Your task to perform on an android device: Do I have any events today? Image 0: 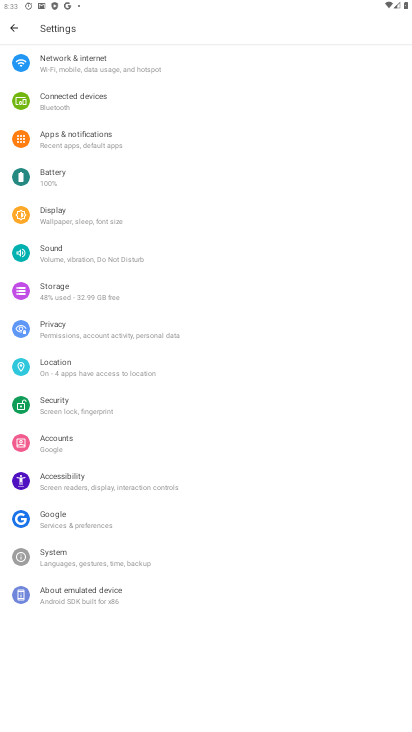
Step 0: press home button
Your task to perform on an android device: Do I have any events today? Image 1: 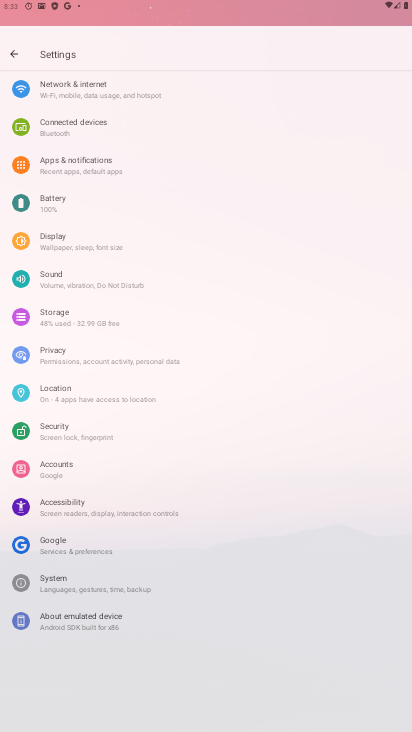
Step 1: press home button
Your task to perform on an android device: Do I have any events today? Image 2: 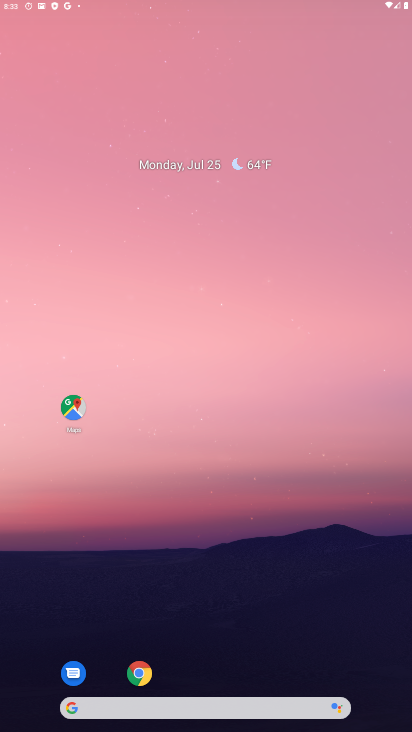
Step 2: drag from (148, 617) to (236, 70)
Your task to perform on an android device: Do I have any events today? Image 3: 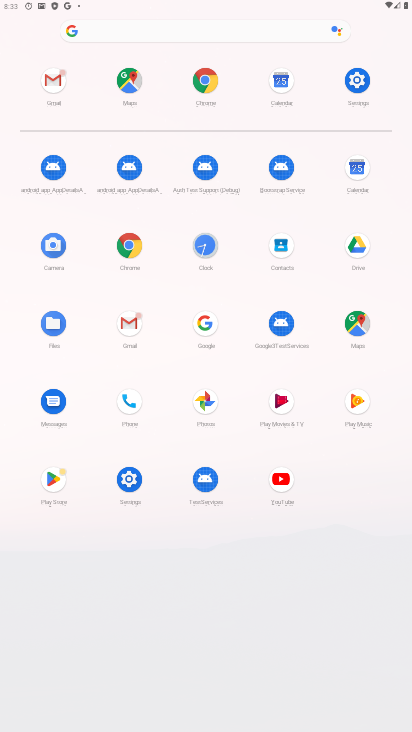
Step 3: click (350, 163)
Your task to perform on an android device: Do I have any events today? Image 4: 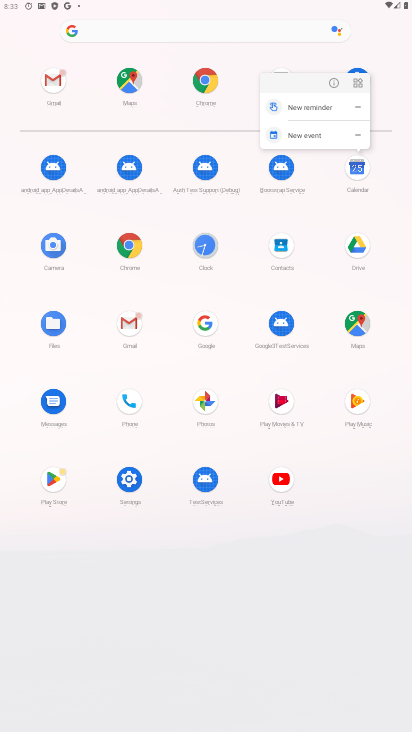
Step 4: click (331, 80)
Your task to perform on an android device: Do I have any events today? Image 5: 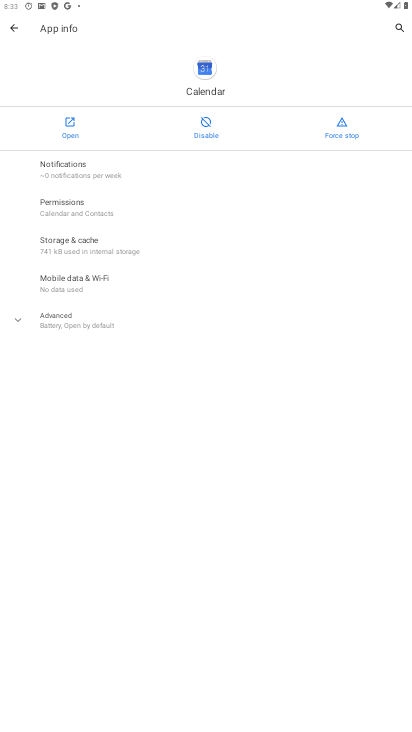
Step 5: click (68, 128)
Your task to perform on an android device: Do I have any events today? Image 6: 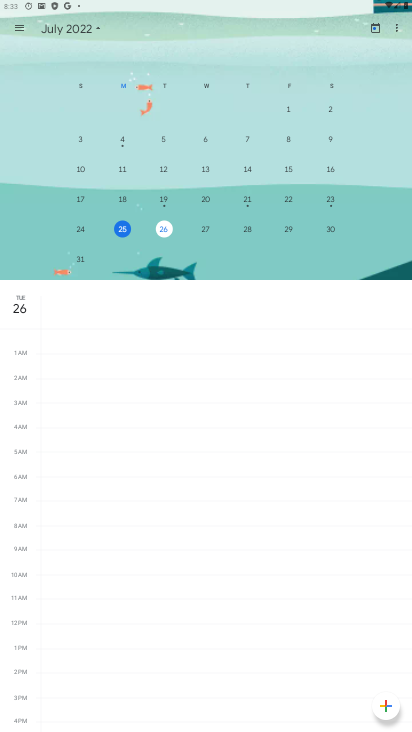
Step 6: click (371, 20)
Your task to perform on an android device: Do I have any events today? Image 7: 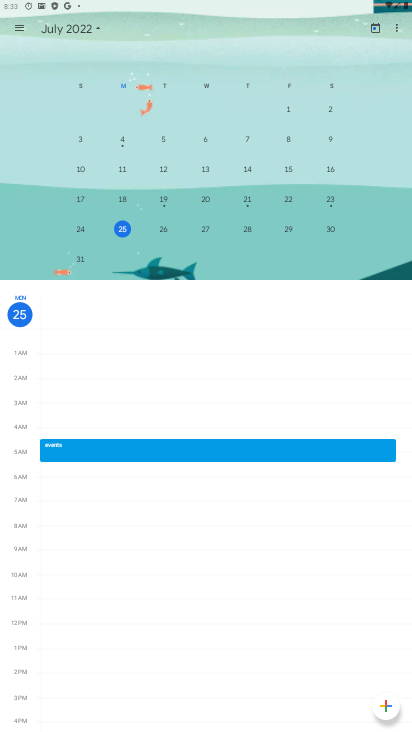
Step 7: click (117, 228)
Your task to perform on an android device: Do I have any events today? Image 8: 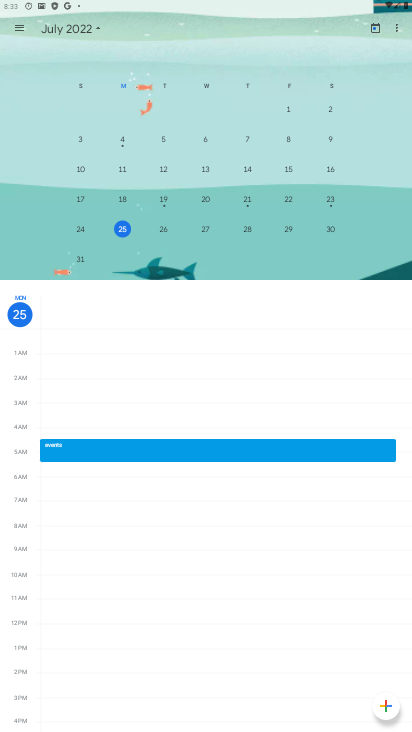
Step 8: task complete